Your task to perform on an android device: open app "Spotify" Image 0: 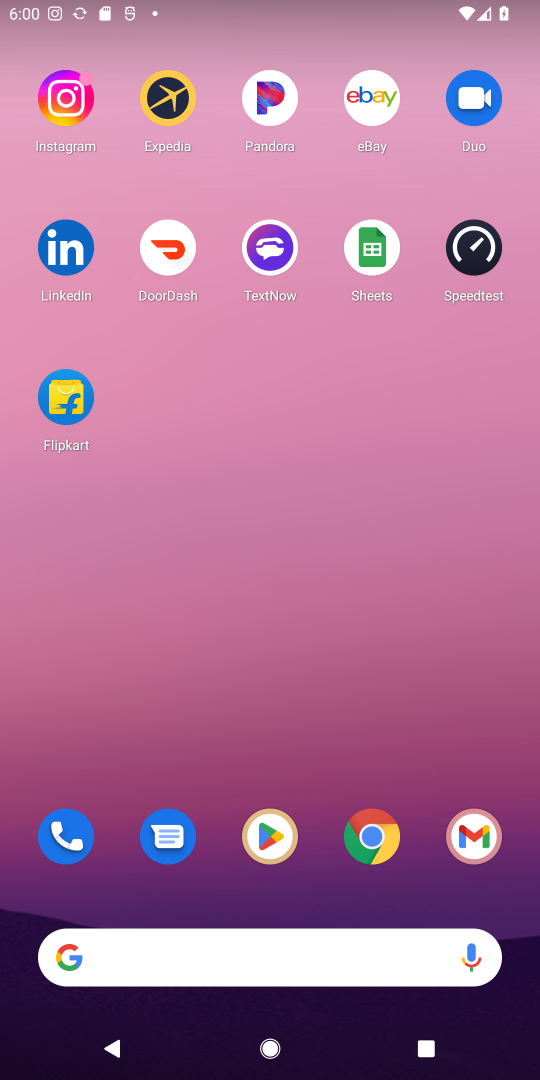
Step 0: click (273, 834)
Your task to perform on an android device: open app "Spotify" Image 1: 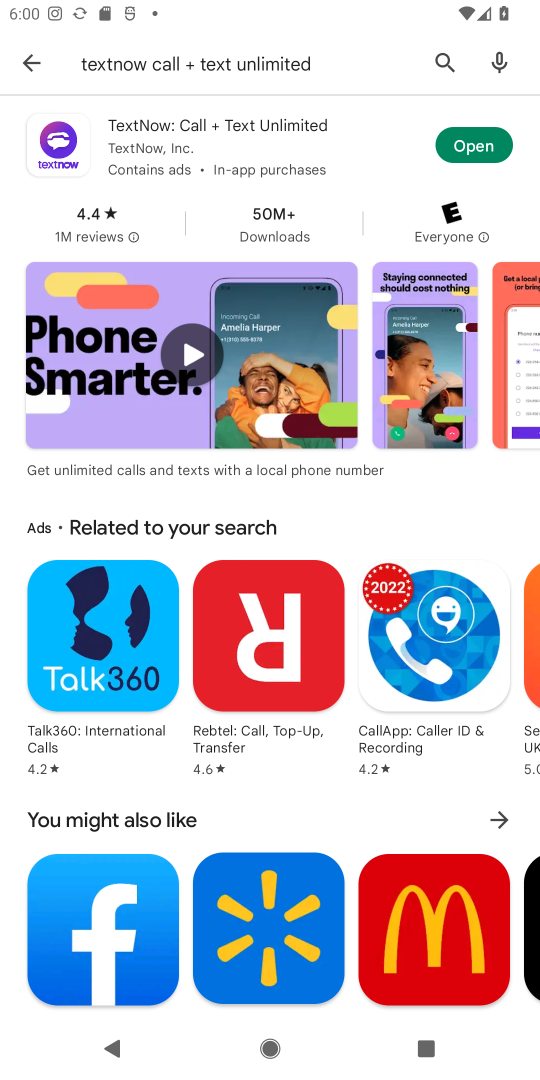
Step 1: click (434, 58)
Your task to perform on an android device: open app "Spotify" Image 2: 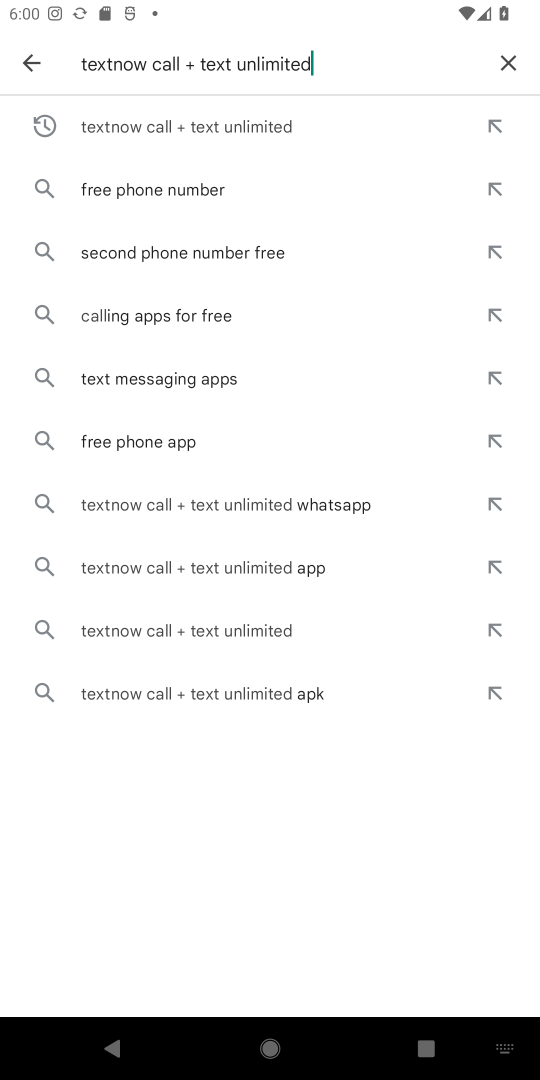
Step 2: click (509, 63)
Your task to perform on an android device: open app "Spotify" Image 3: 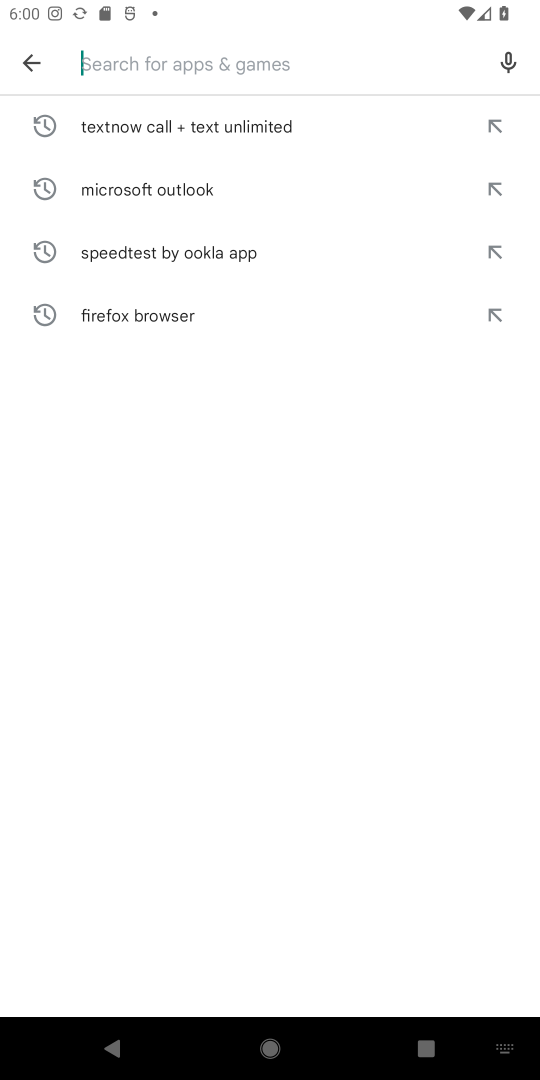
Step 3: type "Spotify"
Your task to perform on an android device: open app "Spotify" Image 4: 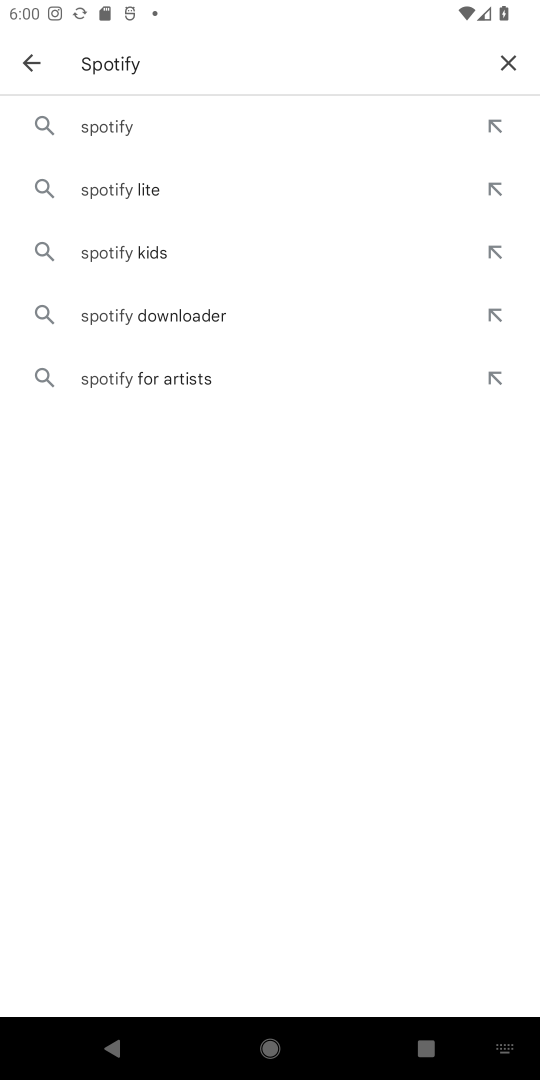
Step 4: click (103, 123)
Your task to perform on an android device: open app "Spotify" Image 5: 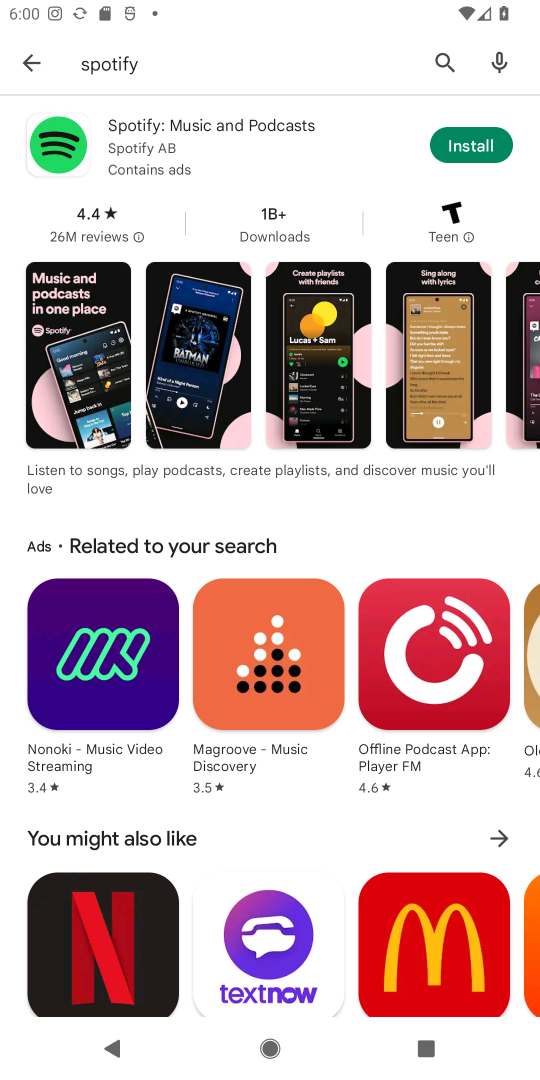
Step 5: task complete